Your task to perform on an android device: Open Google Image 0: 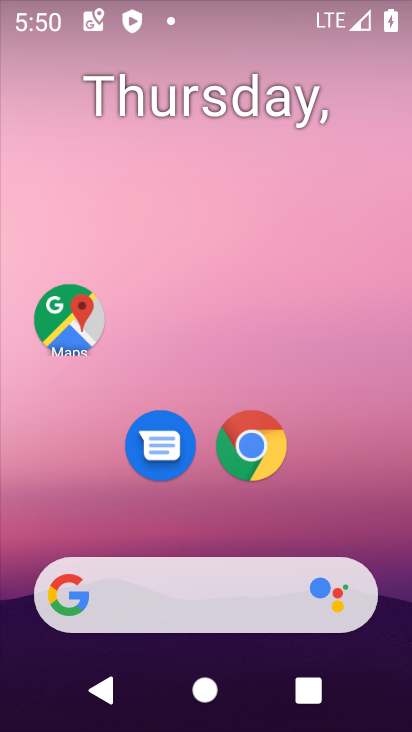
Step 0: drag from (293, 498) to (303, 49)
Your task to perform on an android device: Open Google Image 1: 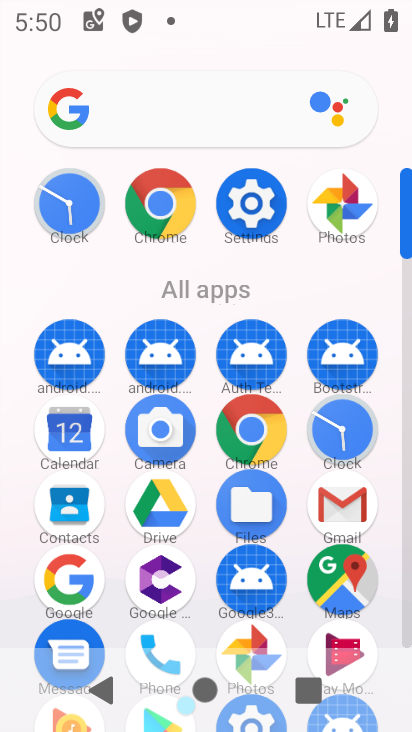
Step 1: click (69, 581)
Your task to perform on an android device: Open Google Image 2: 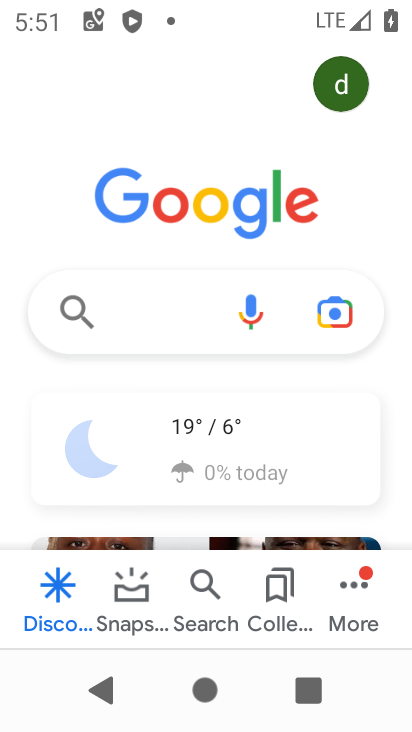
Step 2: task complete